Your task to perform on an android device: Go to Android settings Image 0: 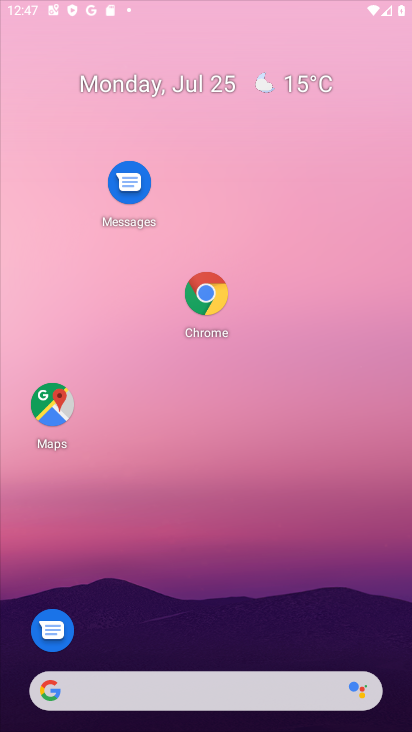
Step 0: drag from (335, 570) to (382, 19)
Your task to perform on an android device: Go to Android settings Image 1: 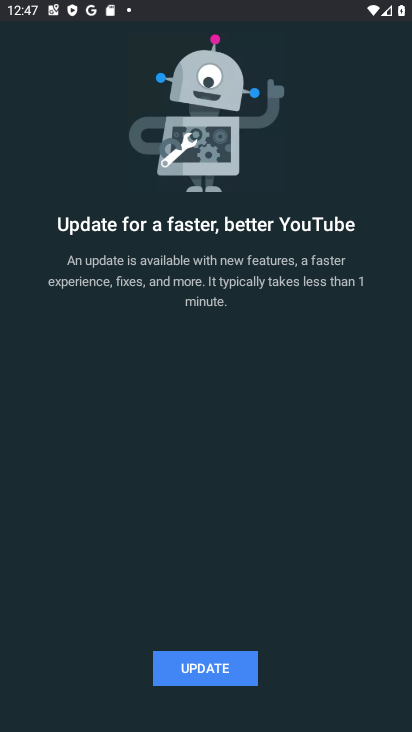
Step 1: press home button
Your task to perform on an android device: Go to Android settings Image 2: 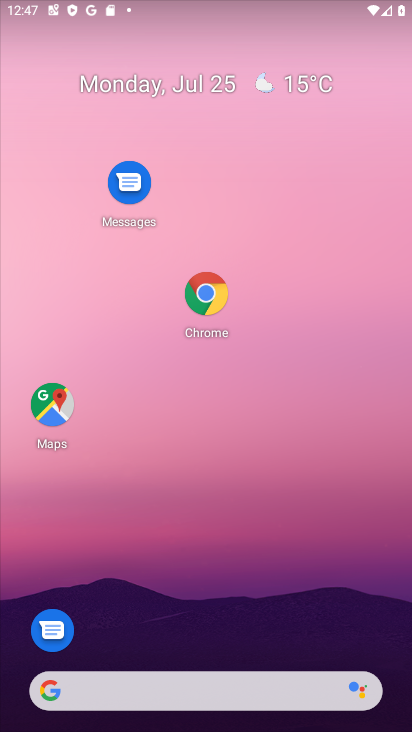
Step 2: drag from (277, 625) to (291, 83)
Your task to perform on an android device: Go to Android settings Image 3: 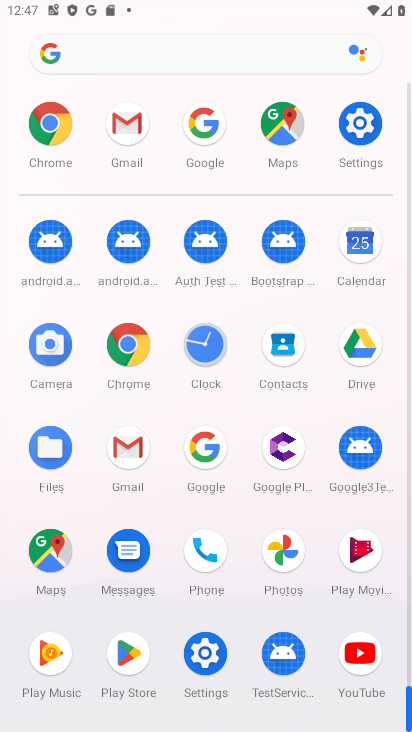
Step 3: click (202, 650)
Your task to perform on an android device: Go to Android settings Image 4: 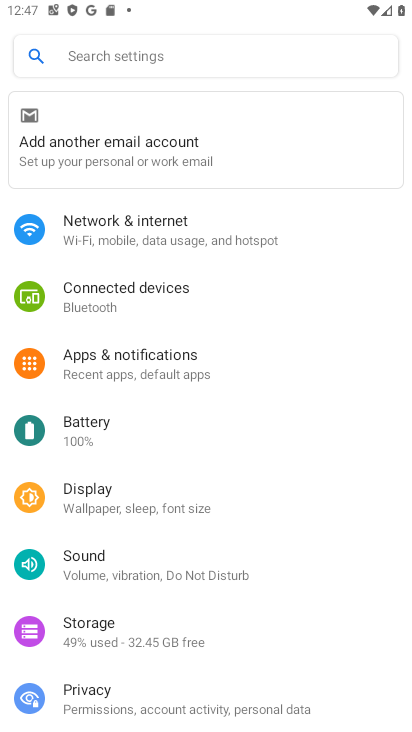
Step 4: drag from (153, 600) to (198, 242)
Your task to perform on an android device: Go to Android settings Image 5: 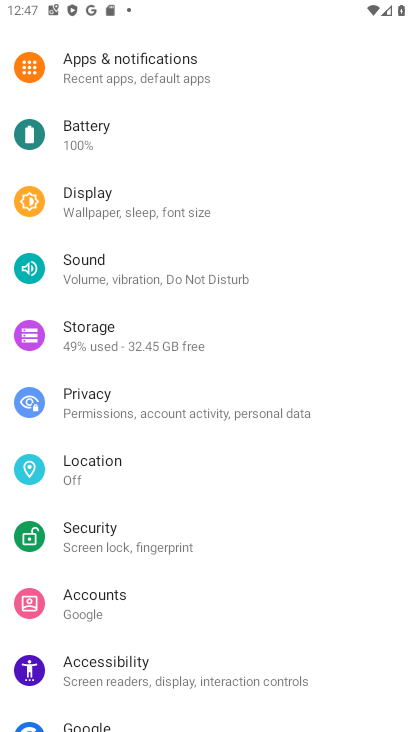
Step 5: drag from (216, 618) to (228, 244)
Your task to perform on an android device: Go to Android settings Image 6: 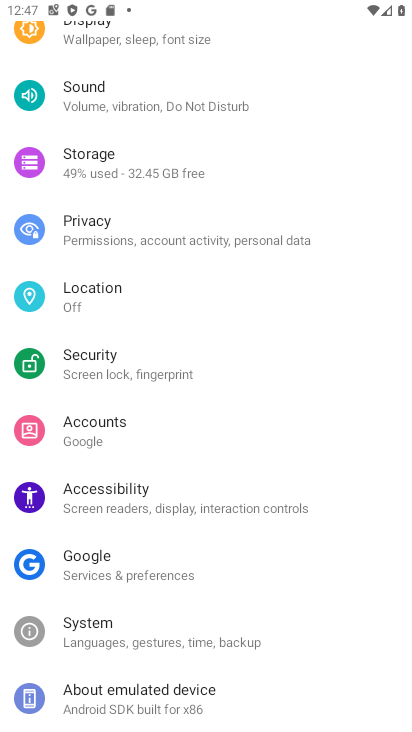
Step 6: click (149, 691)
Your task to perform on an android device: Go to Android settings Image 7: 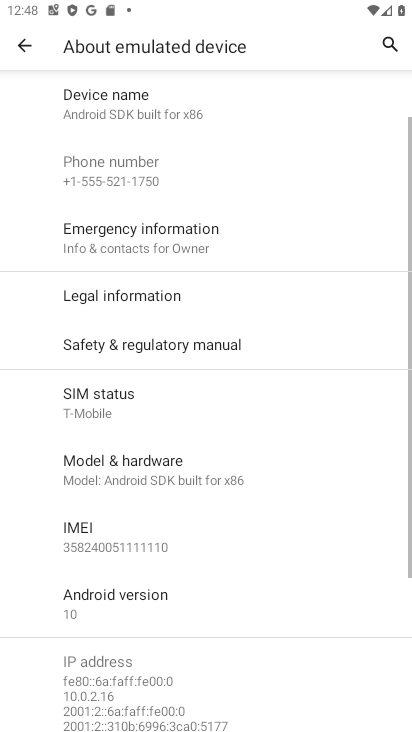
Step 7: click (73, 593)
Your task to perform on an android device: Go to Android settings Image 8: 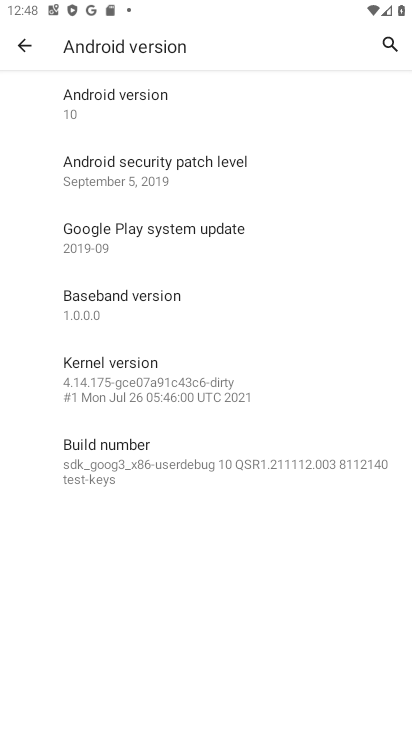
Step 8: task complete